Your task to perform on an android device: check out phone information Image 0: 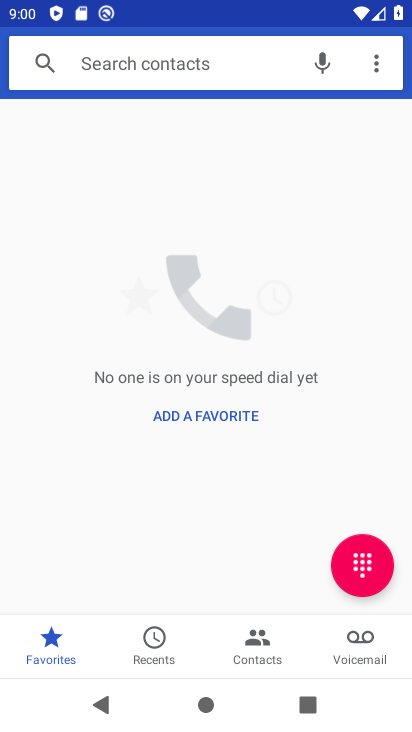
Step 0: press home button
Your task to perform on an android device: check out phone information Image 1: 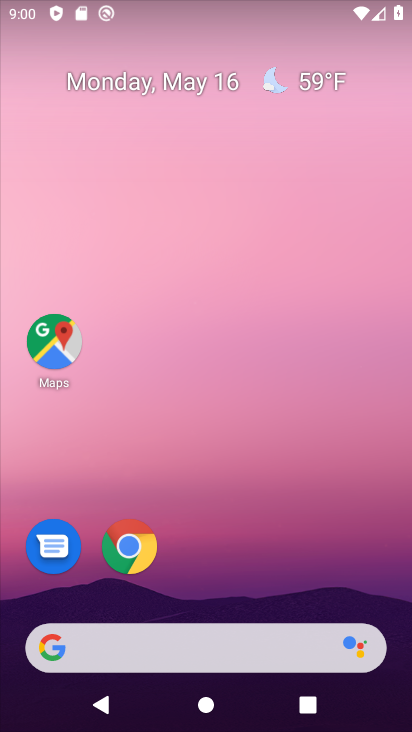
Step 1: drag from (276, 521) to (218, 82)
Your task to perform on an android device: check out phone information Image 2: 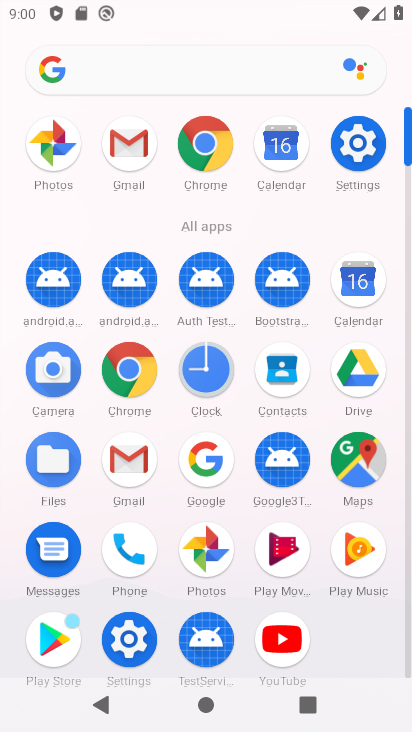
Step 2: click (350, 156)
Your task to perform on an android device: check out phone information Image 3: 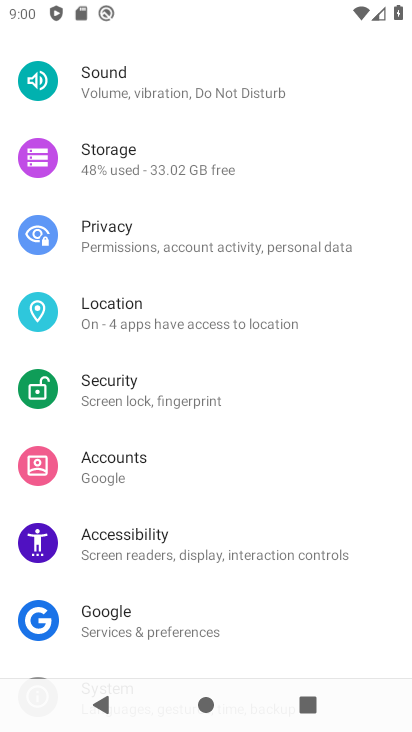
Step 3: drag from (202, 624) to (253, 88)
Your task to perform on an android device: check out phone information Image 4: 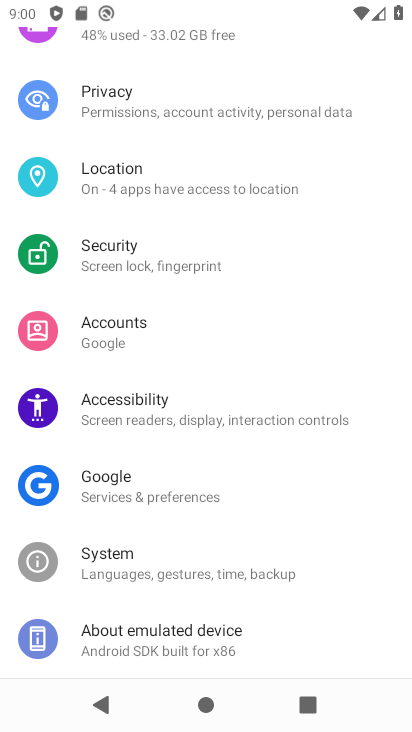
Step 4: click (149, 630)
Your task to perform on an android device: check out phone information Image 5: 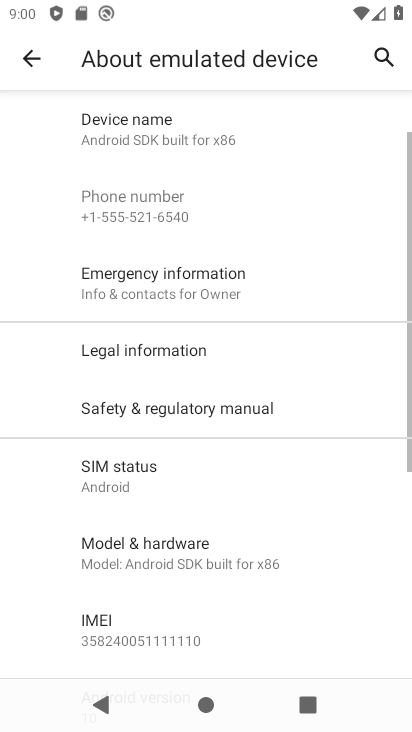
Step 5: task complete